Your task to perform on an android device: Open Google Maps Image 0: 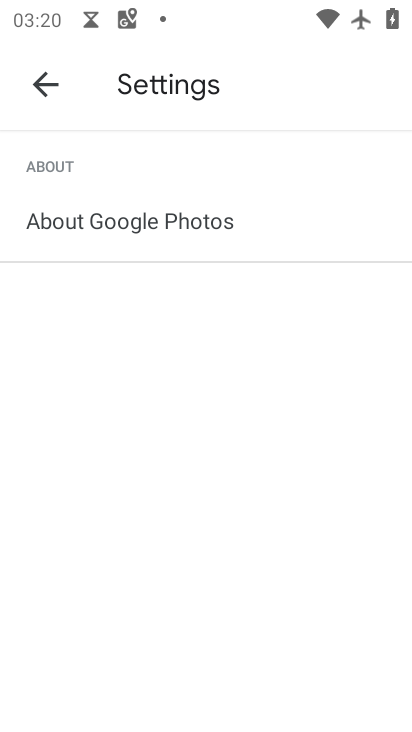
Step 0: press home button
Your task to perform on an android device: Open Google Maps Image 1: 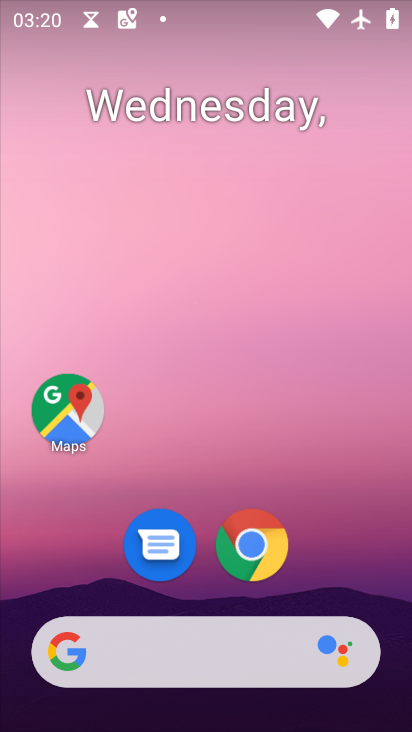
Step 1: click (64, 423)
Your task to perform on an android device: Open Google Maps Image 2: 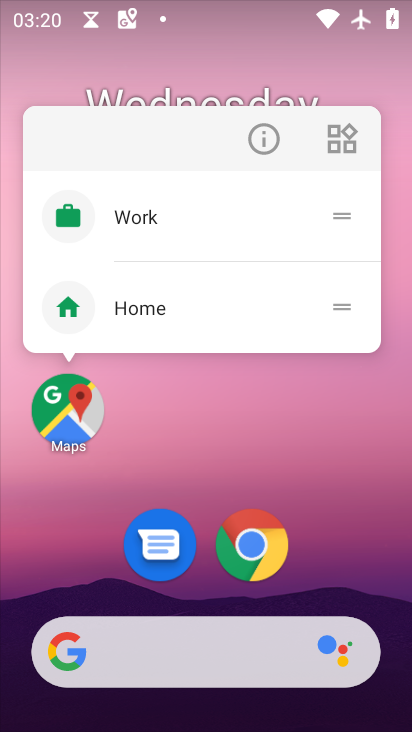
Step 2: click (64, 423)
Your task to perform on an android device: Open Google Maps Image 3: 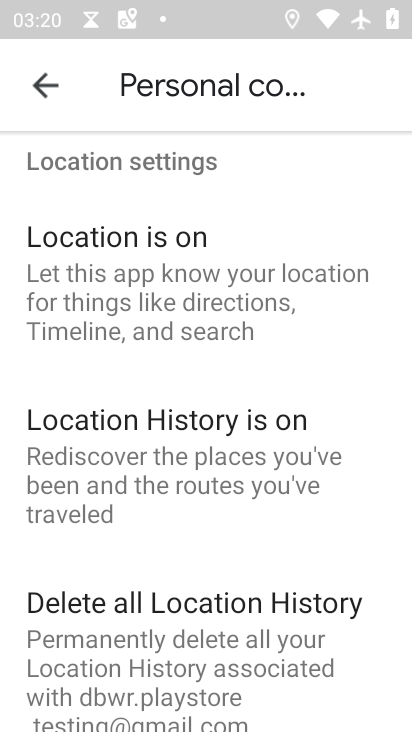
Step 3: click (39, 93)
Your task to perform on an android device: Open Google Maps Image 4: 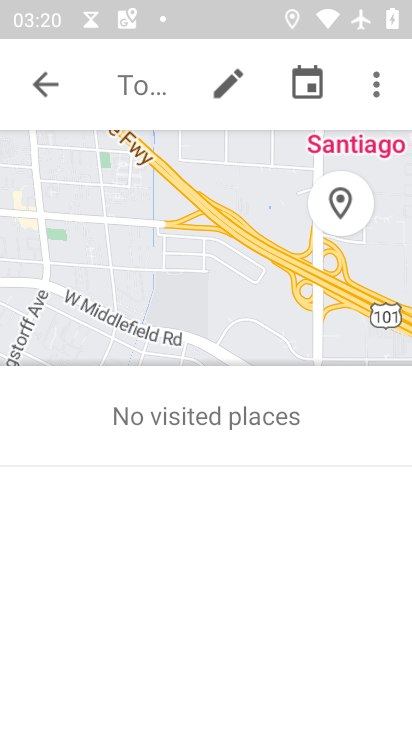
Step 4: click (39, 94)
Your task to perform on an android device: Open Google Maps Image 5: 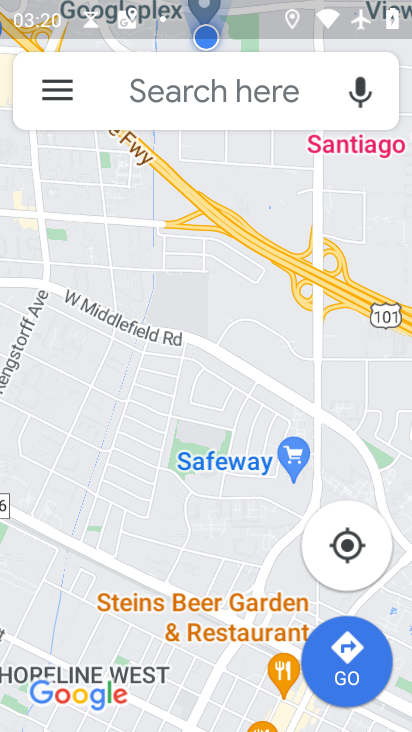
Step 5: task complete